Your task to perform on an android device: search for starred emails in the gmail app Image 0: 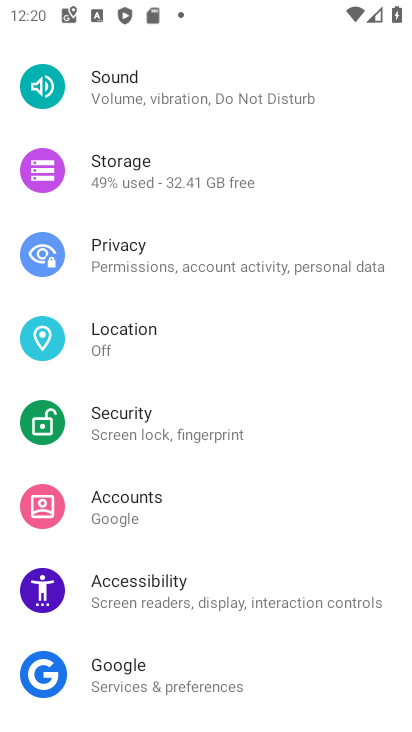
Step 0: press home button
Your task to perform on an android device: search for starred emails in the gmail app Image 1: 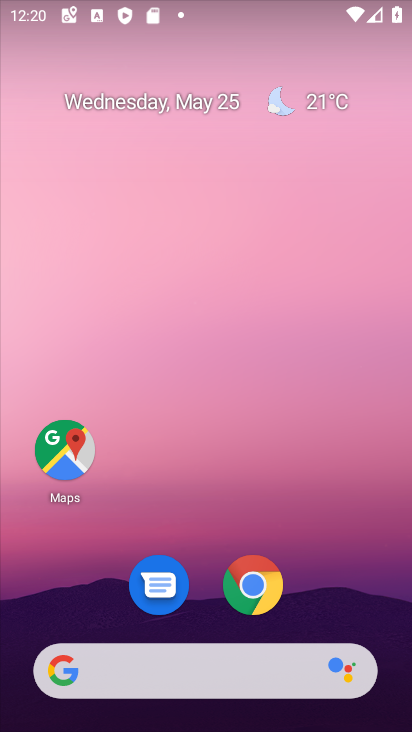
Step 1: drag from (194, 493) to (246, 26)
Your task to perform on an android device: search for starred emails in the gmail app Image 2: 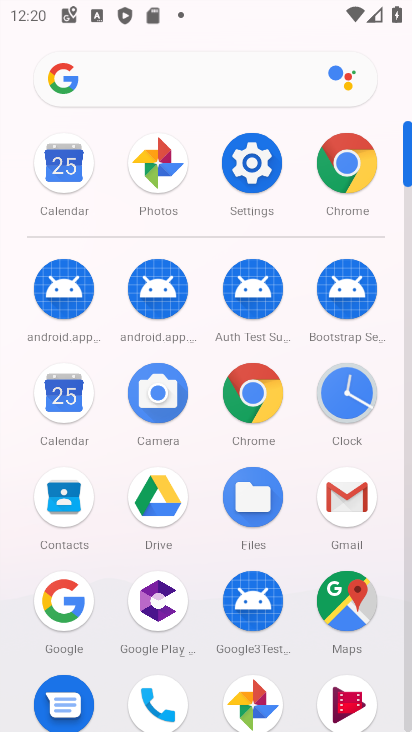
Step 2: click (342, 486)
Your task to perform on an android device: search for starred emails in the gmail app Image 3: 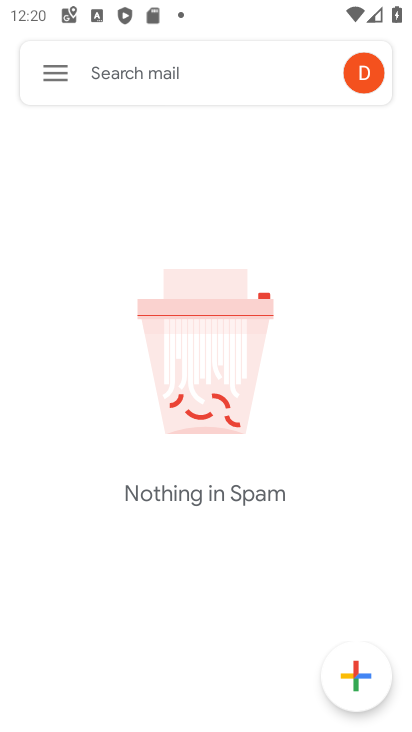
Step 3: click (56, 66)
Your task to perform on an android device: search for starred emails in the gmail app Image 4: 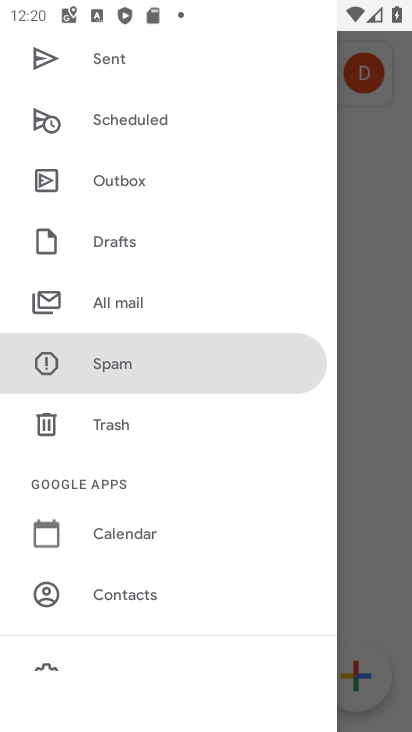
Step 4: drag from (162, 248) to (153, 621)
Your task to perform on an android device: search for starred emails in the gmail app Image 5: 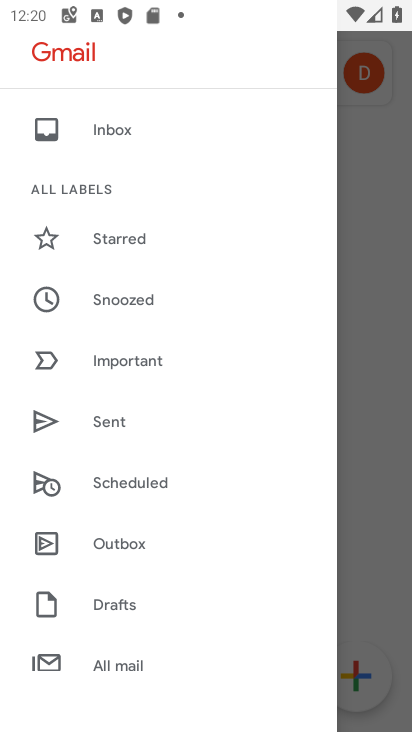
Step 5: click (158, 241)
Your task to perform on an android device: search for starred emails in the gmail app Image 6: 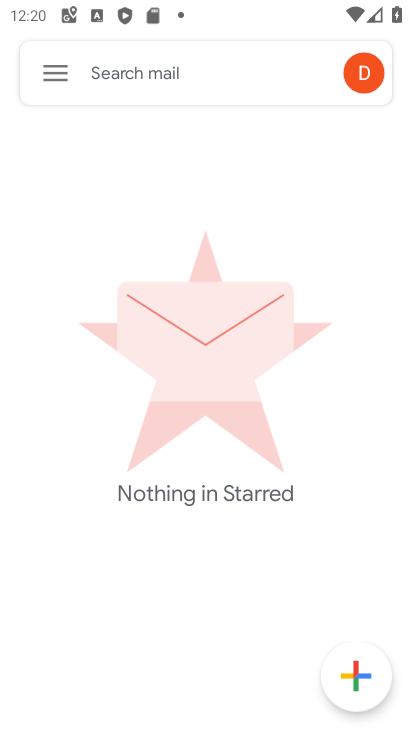
Step 6: task complete